Your task to perform on an android device: What's the weather? Image 0: 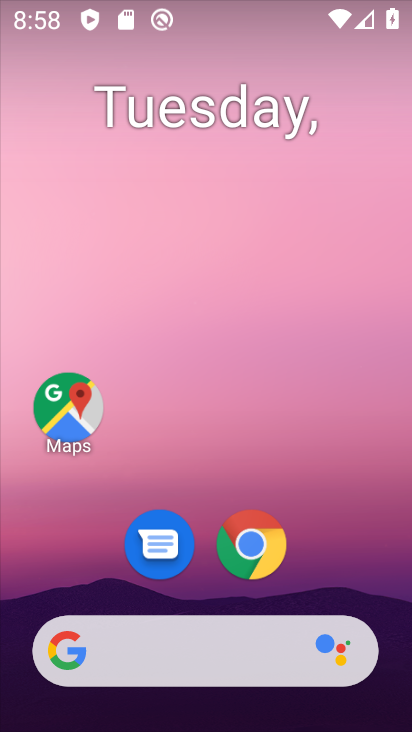
Step 0: click (234, 652)
Your task to perform on an android device: What's the weather? Image 1: 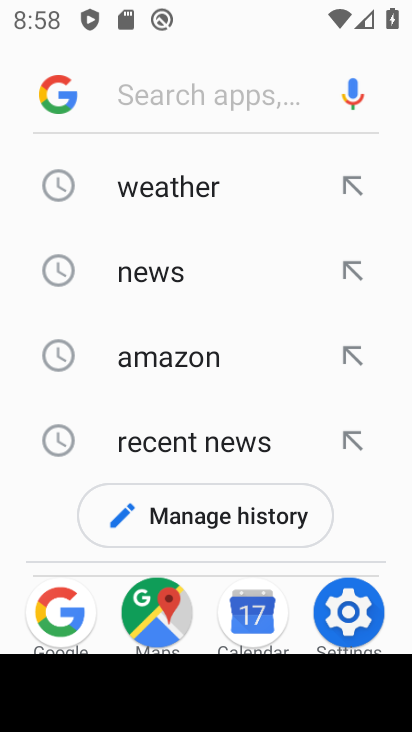
Step 1: click (146, 174)
Your task to perform on an android device: What's the weather? Image 2: 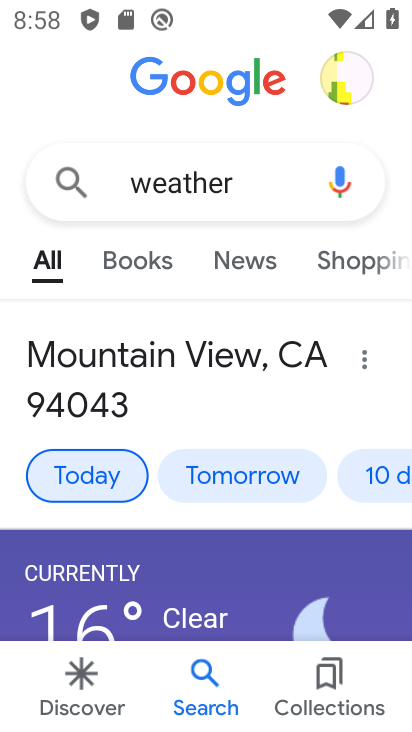
Step 2: task complete